Your task to perform on an android device: uninstall "Microsoft Excel" Image 0: 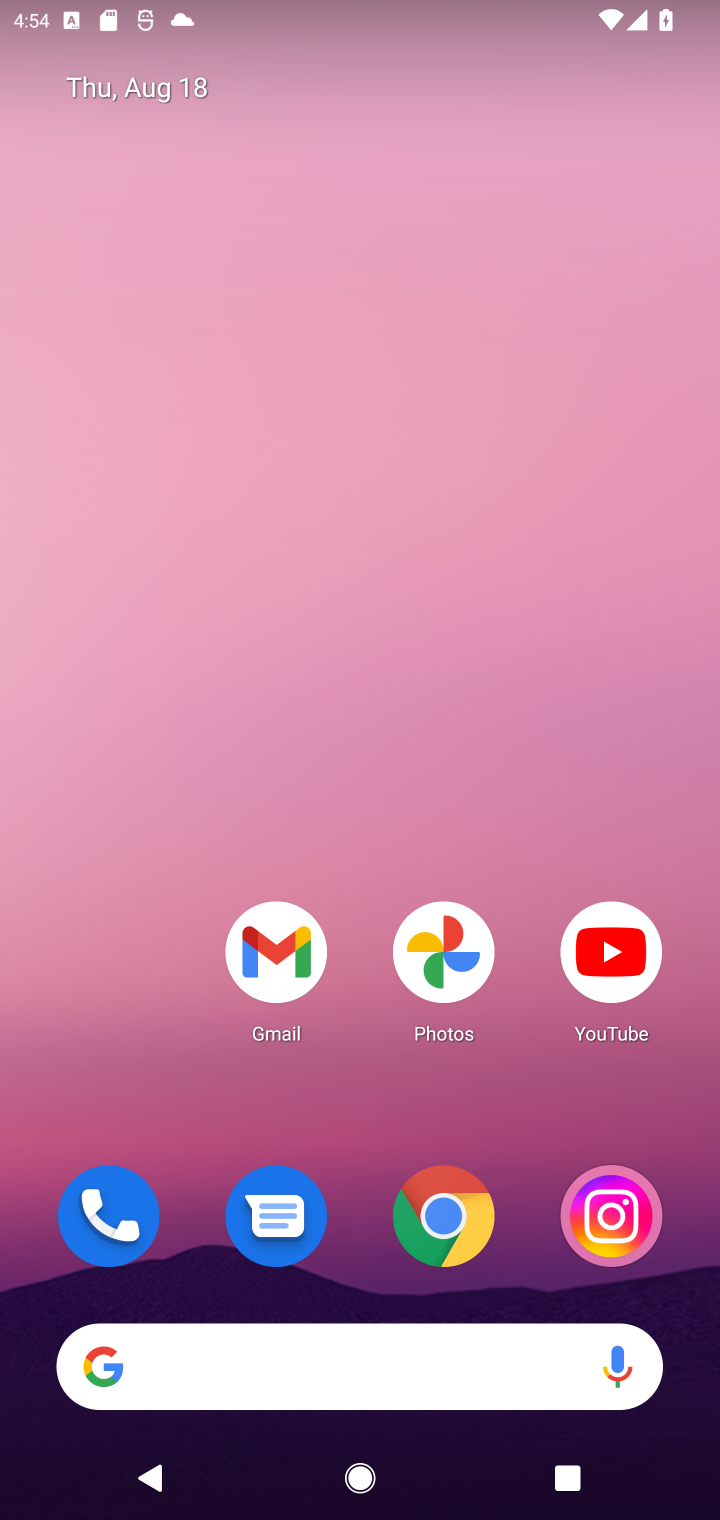
Step 0: drag from (396, 1089) to (437, 296)
Your task to perform on an android device: uninstall "Microsoft Excel" Image 1: 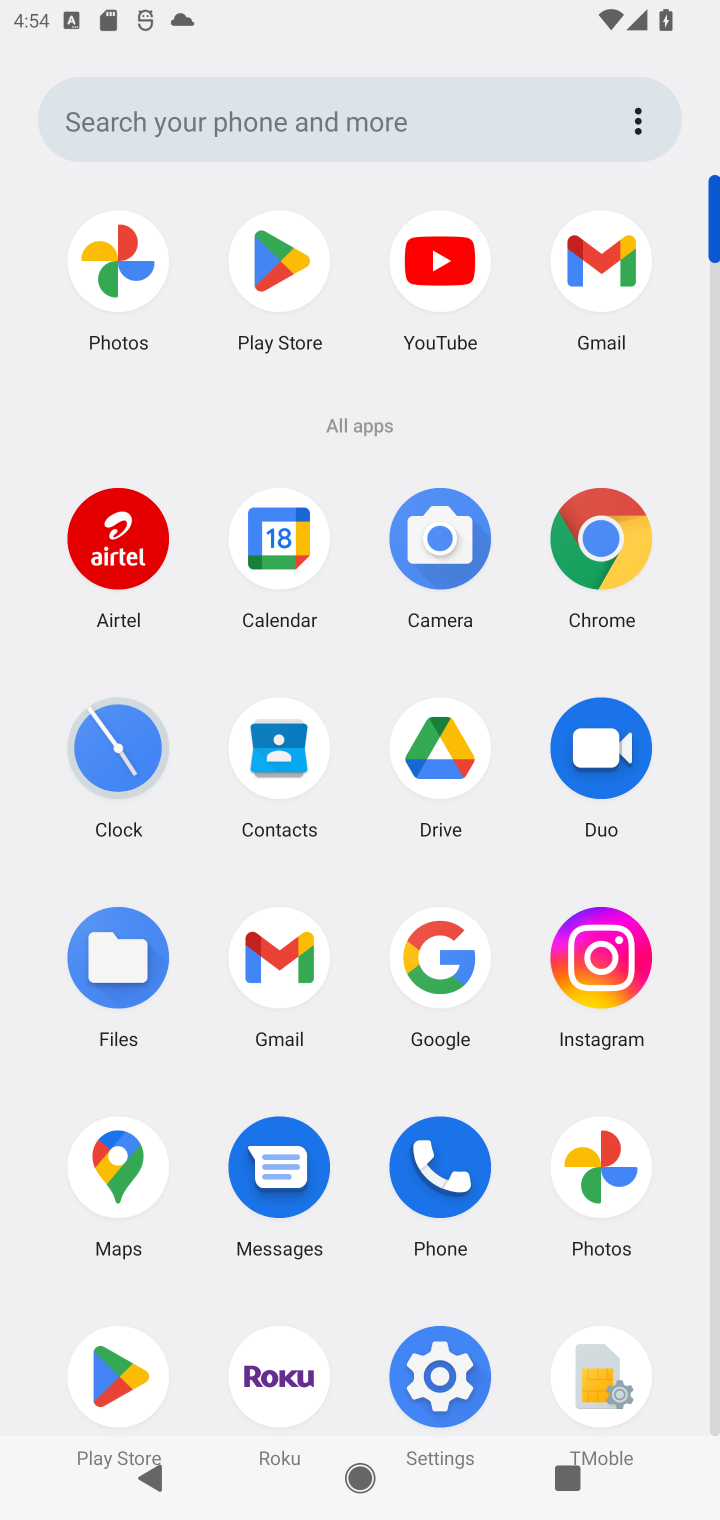
Step 1: click (229, 326)
Your task to perform on an android device: uninstall "Microsoft Excel" Image 2: 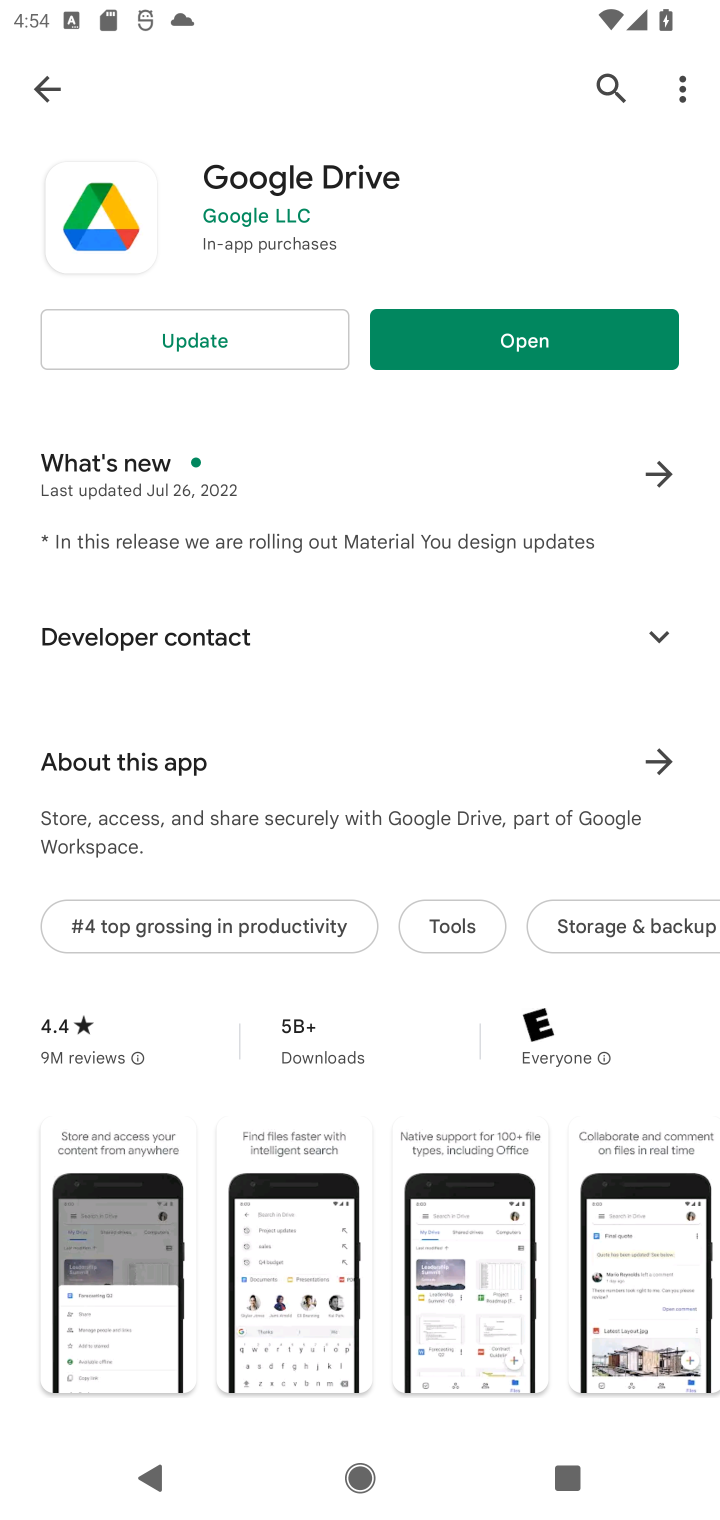
Step 2: click (634, 82)
Your task to perform on an android device: uninstall "Microsoft Excel" Image 3: 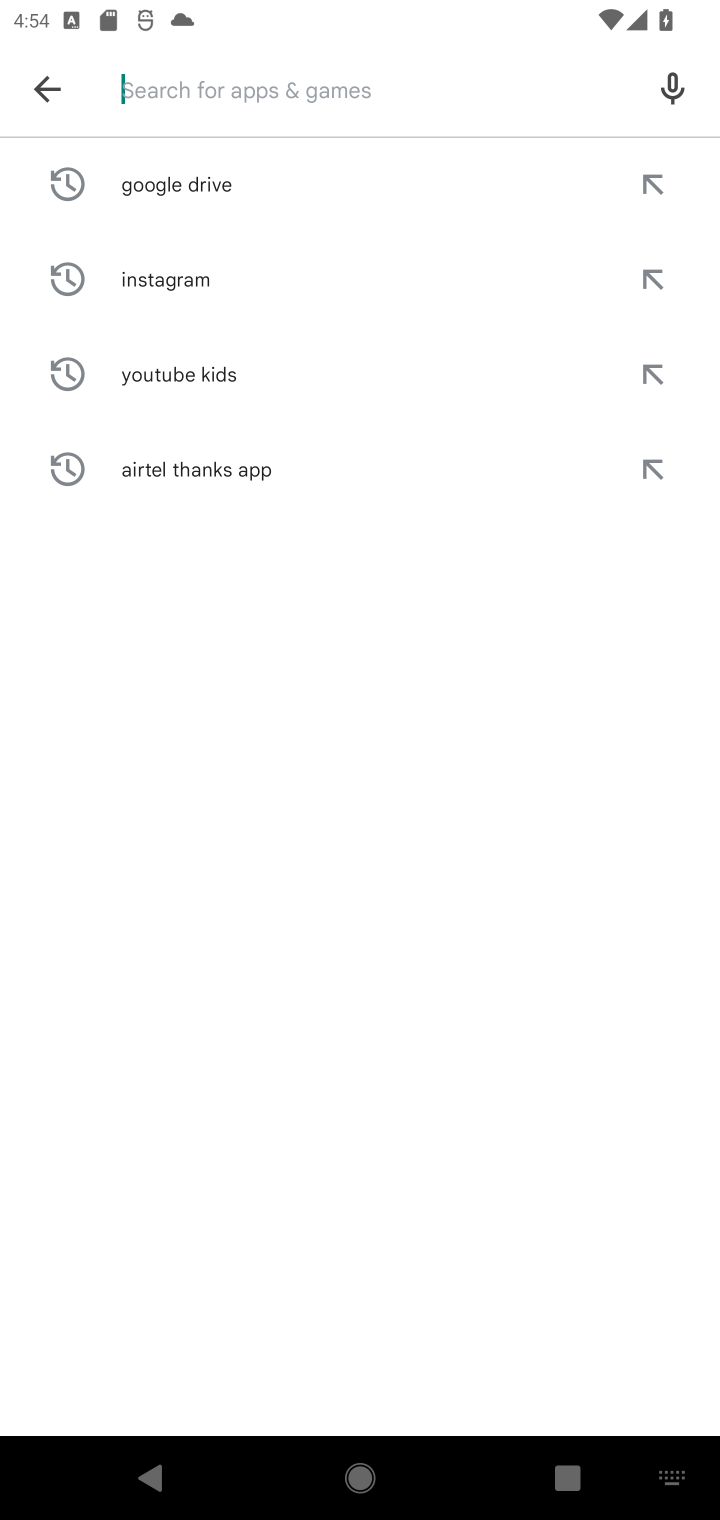
Step 3: type "Microsoft Excel"
Your task to perform on an android device: uninstall "Microsoft Excel" Image 4: 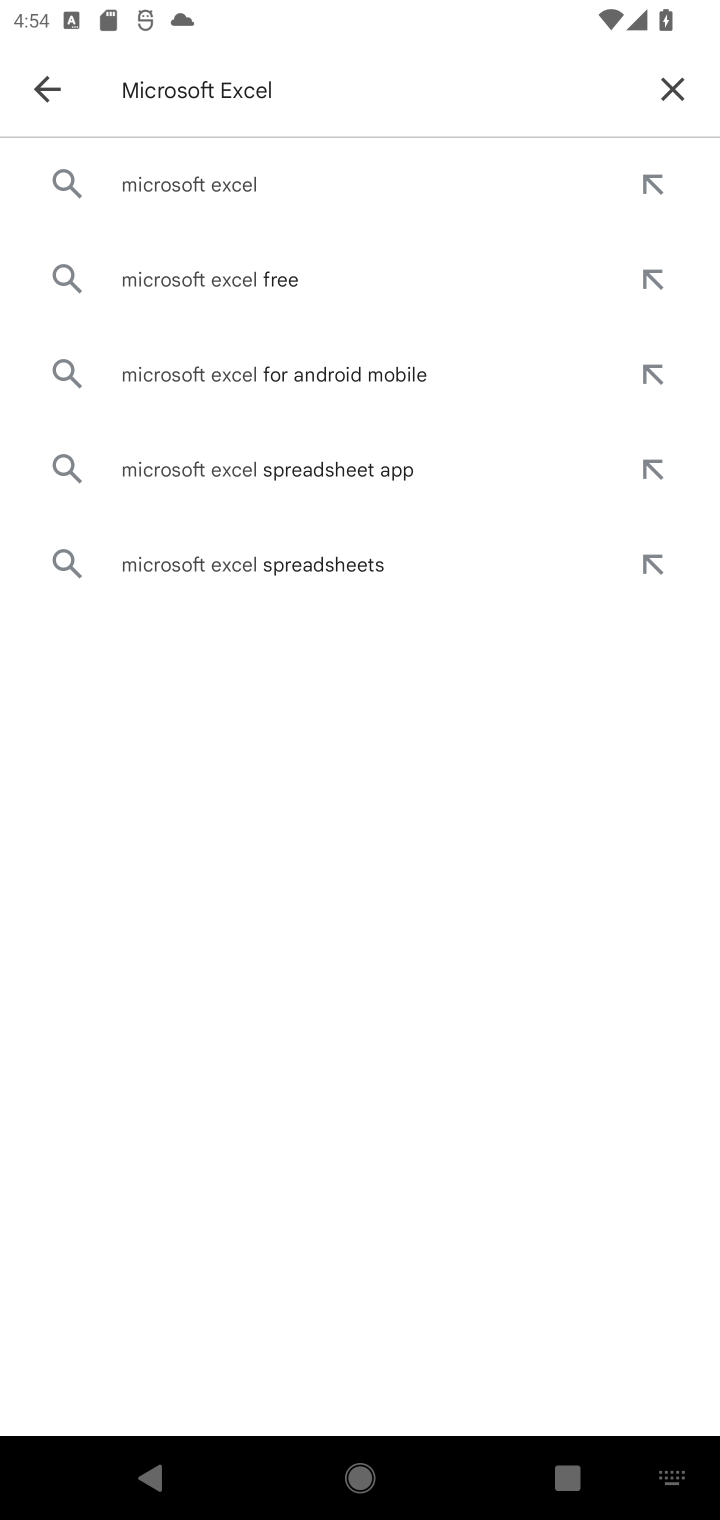
Step 4: click (322, 194)
Your task to perform on an android device: uninstall "Microsoft Excel" Image 5: 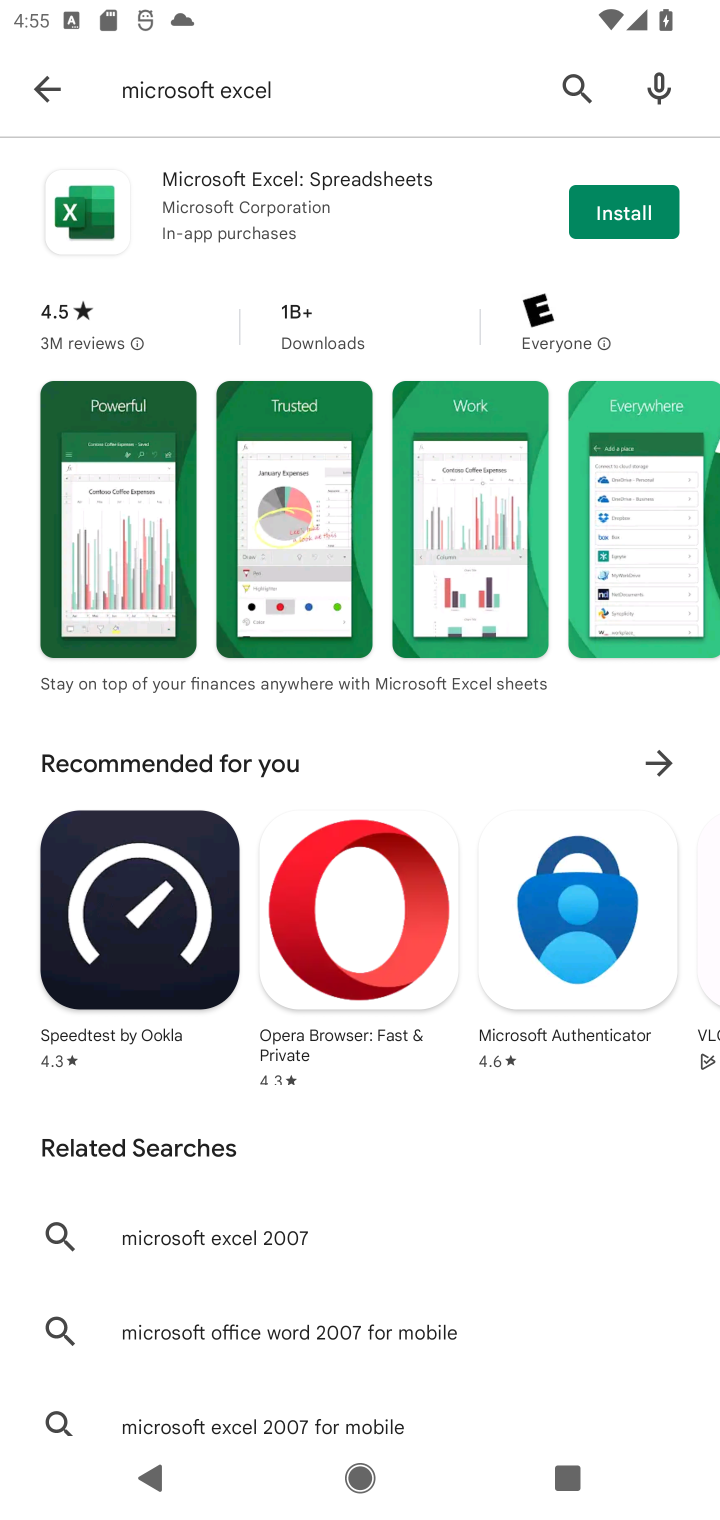
Step 5: task complete